Your task to perform on an android device: Go to settings Image 0: 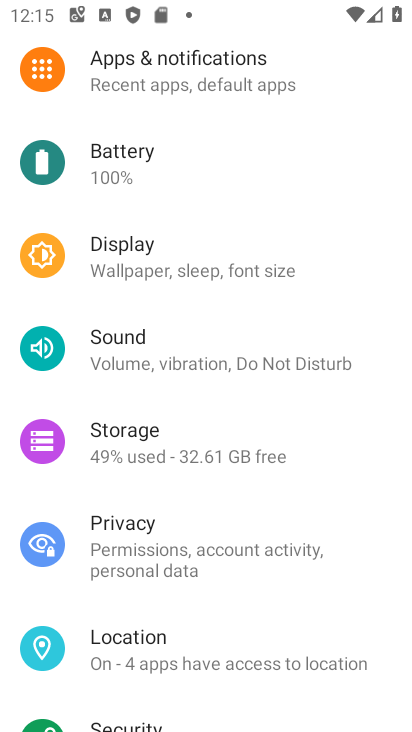
Step 0: task complete